Your task to perform on an android device: add a contact in the contacts app Image 0: 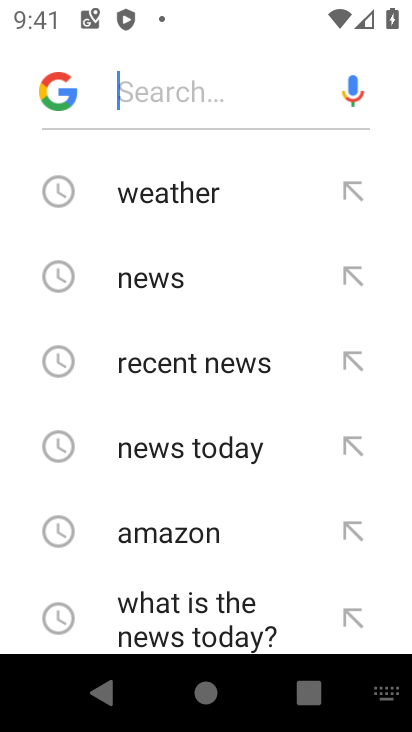
Step 0: press home button
Your task to perform on an android device: add a contact in the contacts app Image 1: 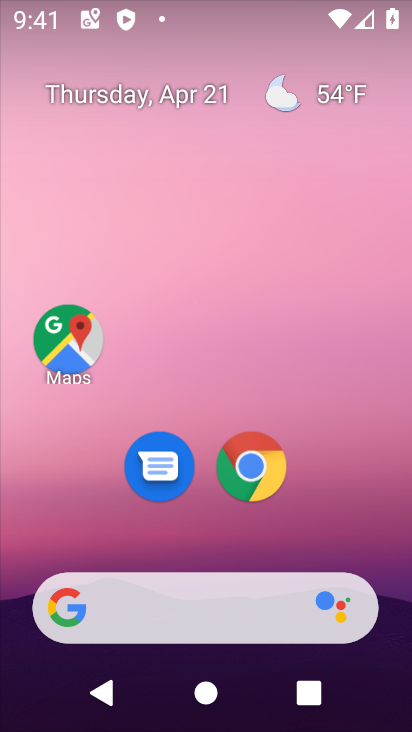
Step 1: drag from (342, 503) to (343, 145)
Your task to perform on an android device: add a contact in the contacts app Image 2: 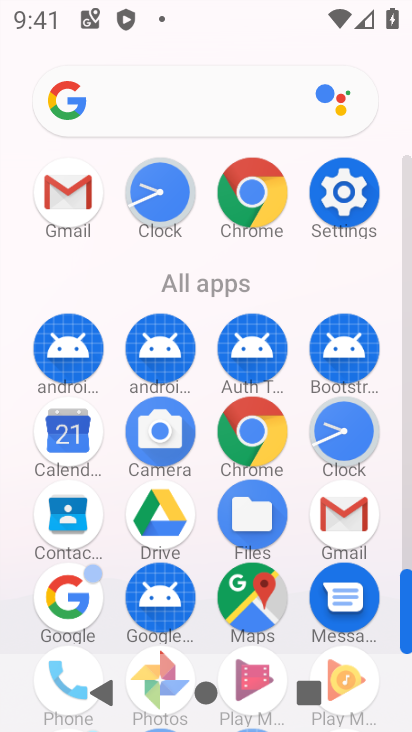
Step 2: click (68, 536)
Your task to perform on an android device: add a contact in the contacts app Image 3: 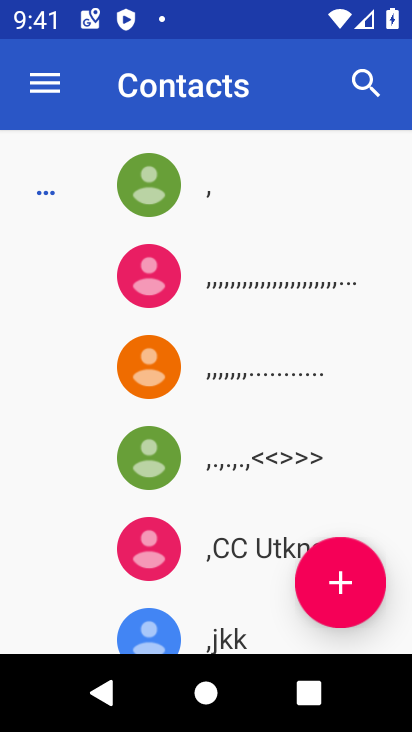
Step 3: click (318, 583)
Your task to perform on an android device: add a contact in the contacts app Image 4: 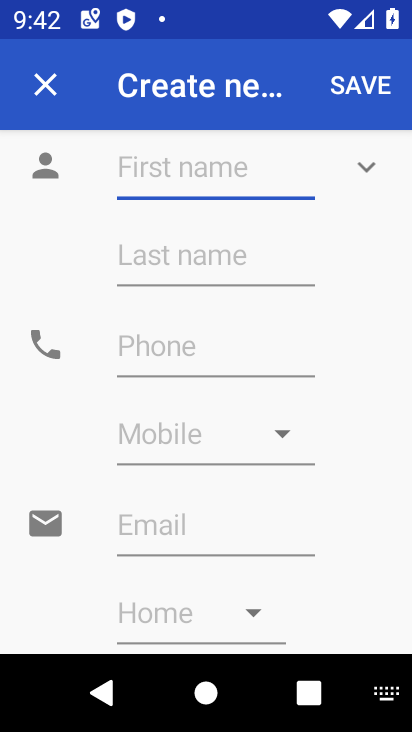
Step 4: type "johan cena"
Your task to perform on an android device: add a contact in the contacts app Image 5: 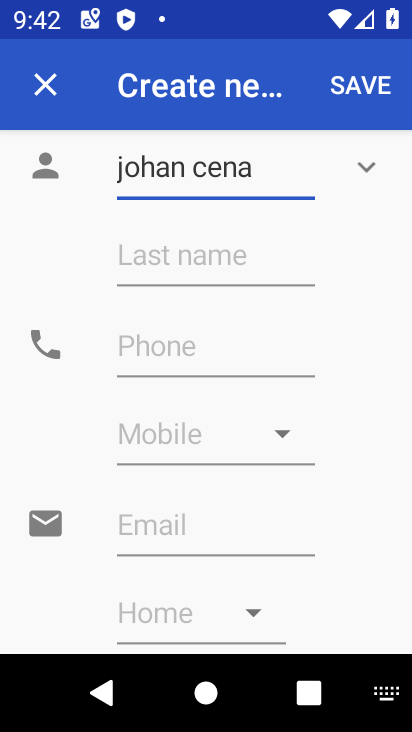
Step 5: click (213, 339)
Your task to perform on an android device: add a contact in the contacts app Image 6: 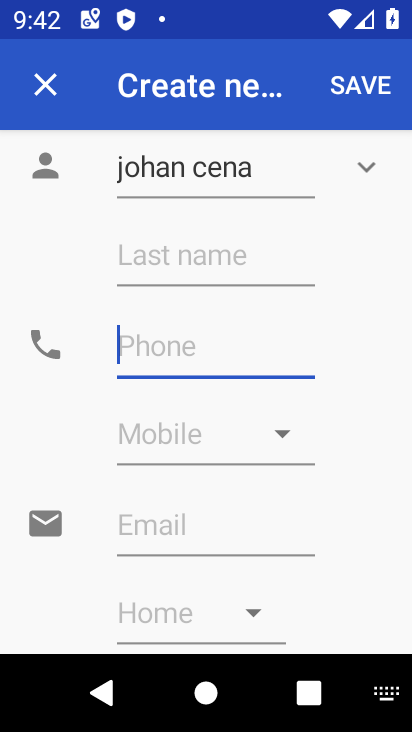
Step 6: type "986948574"
Your task to perform on an android device: add a contact in the contacts app Image 7: 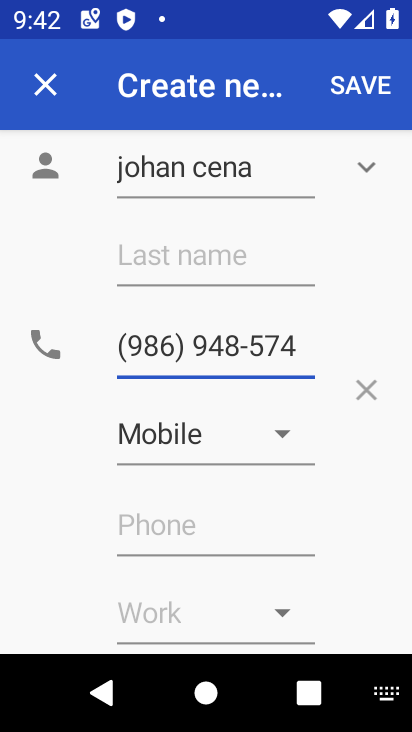
Step 7: click (356, 81)
Your task to perform on an android device: add a contact in the contacts app Image 8: 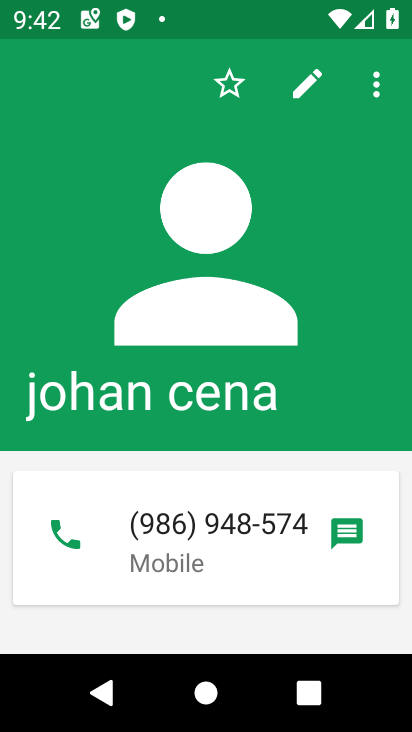
Step 8: task complete